Your task to perform on an android device: make emails show in primary in the gmail app Image 0: 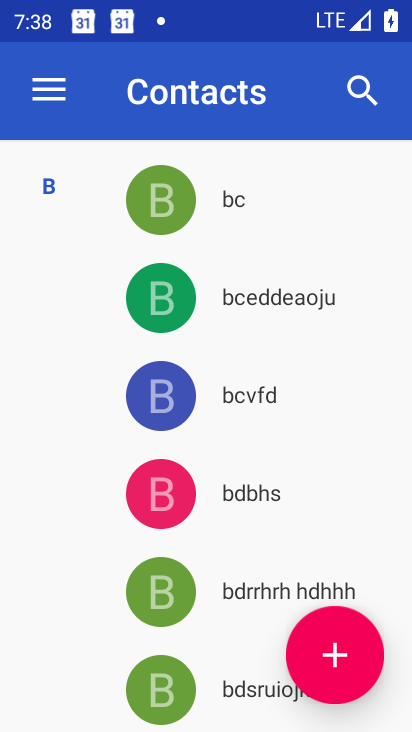
Step 0: press home button
Your task to perform on an android device: make emails show in primary in the gmail app Image 1: 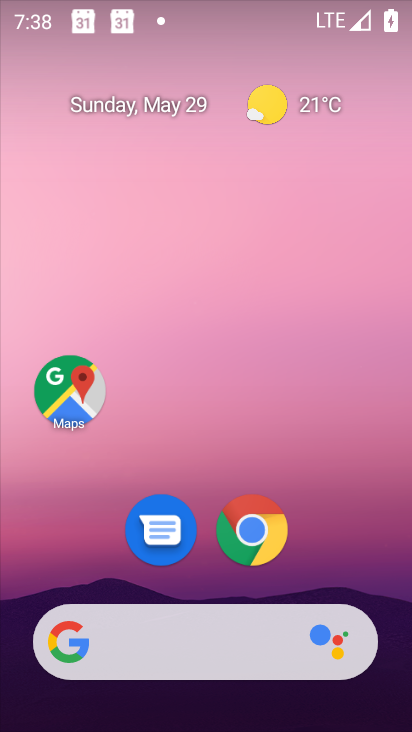
Step 1: drag from (216, 686) to (253, 138)
Your task to perform on an android device: make emails show in primary in the gmail app Image 2: 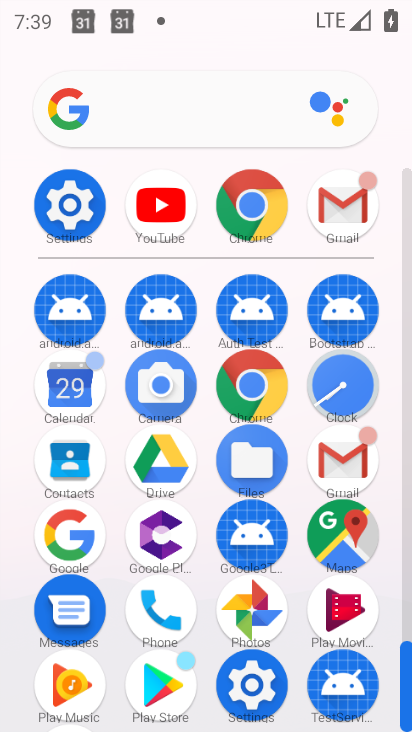
Step 2: click (346, 222)
Your task to perform on an android device: make emails show in primary in the gmail app Image 3: 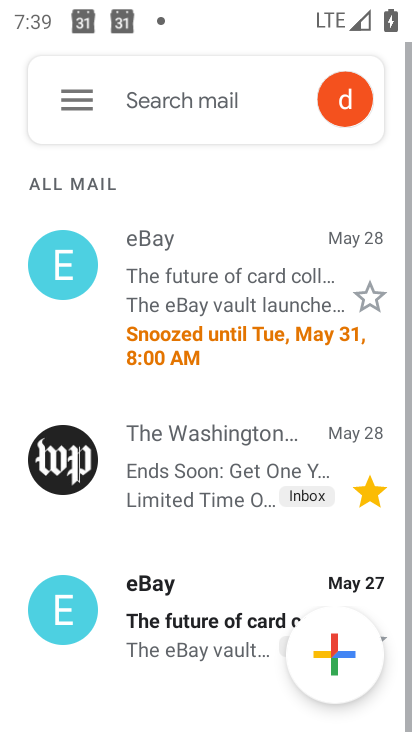
Step 3: click (65, 109)
Your task to perform on an android device: make emails show in primary in the gmail app Image 4: 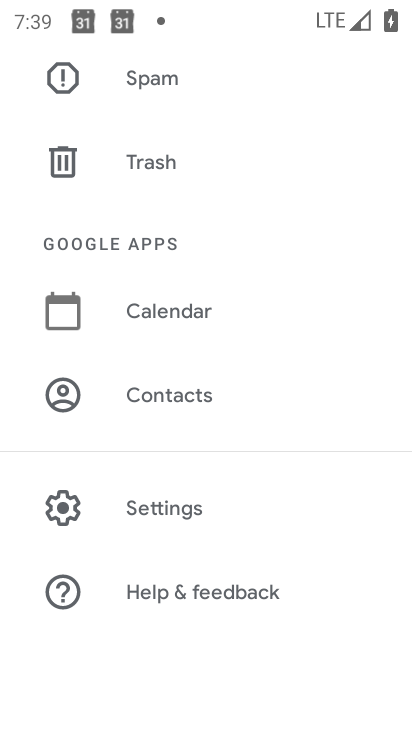
Step 4: click (178, 505)
Your task to perform on an android device: make emails show in primary in the gmail app Image 5: 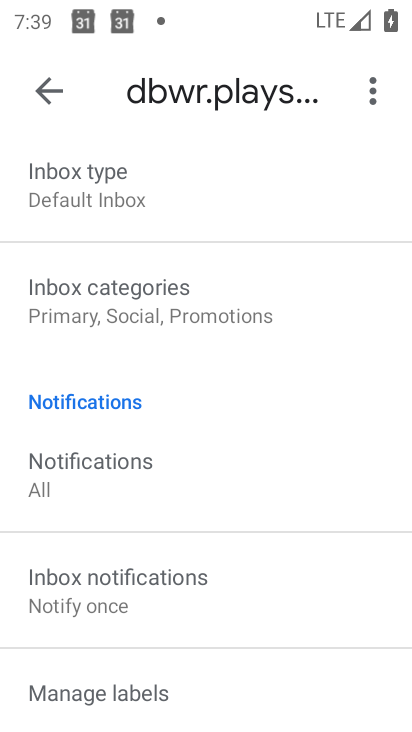
Step 5: click (150, 301)
Your task to perform on an android device: make emails show in primary in the gmail app Image 6: 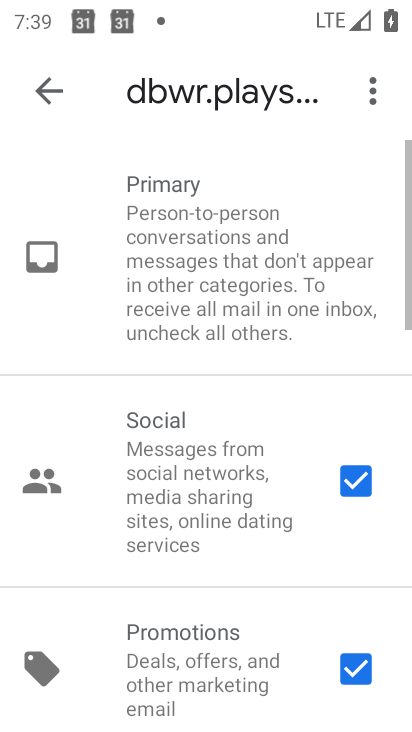
Step 6: click (219, 218)
Your task to perform on an android device: make emails show in primary in the gmail app Image 7: 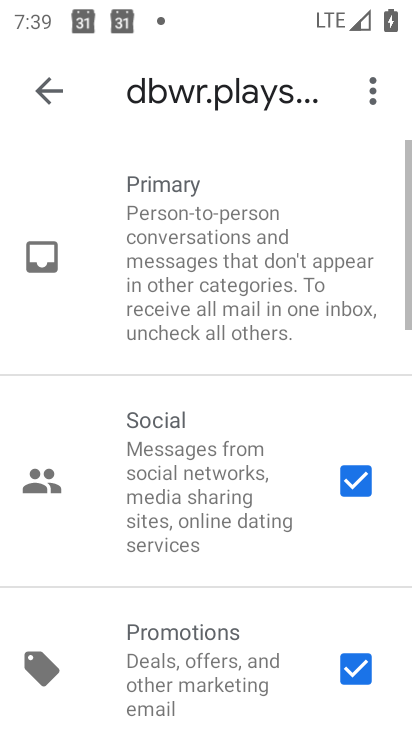
Step 7: click (376, 477)
Your task to perform on an android device: make emails show in primary in the gmail app Image 8: 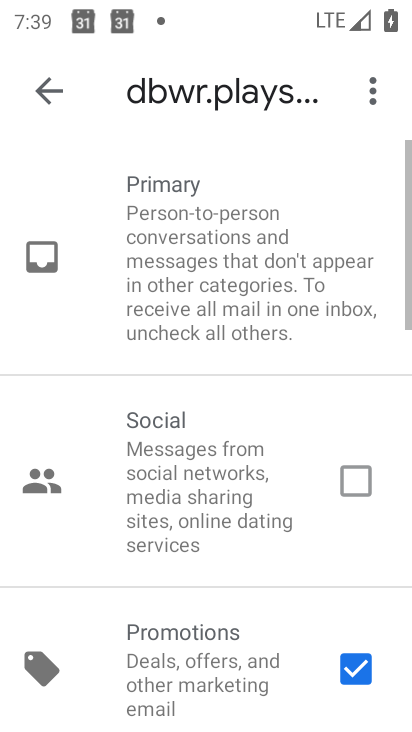
Step 8: click (359, 672)
Your task to perform on an android device: make emails show in primary in the gmail app Image 9: 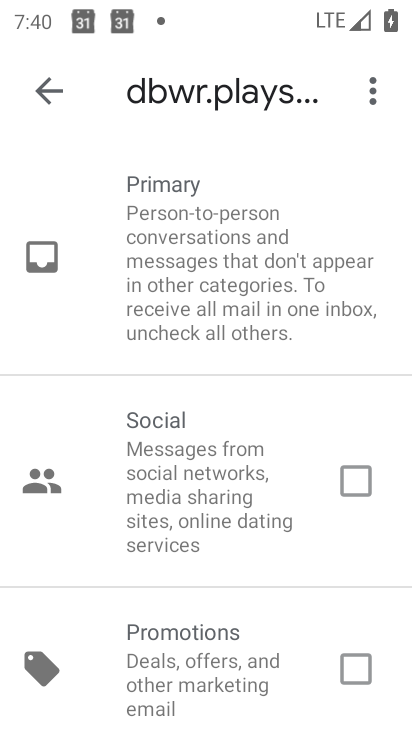
Step 9: task complete